Your task to perform on an android device: open a bookmark in the chrome app Image 0: 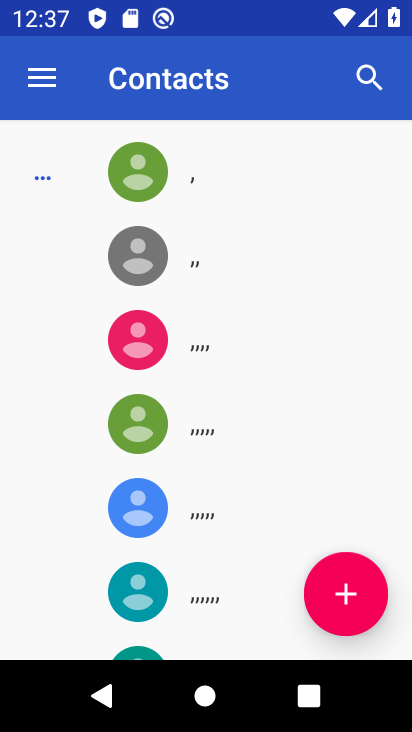
Step 0: press home button
Your task to perform on an android device: open a bookmark in the chrome app Image 1: 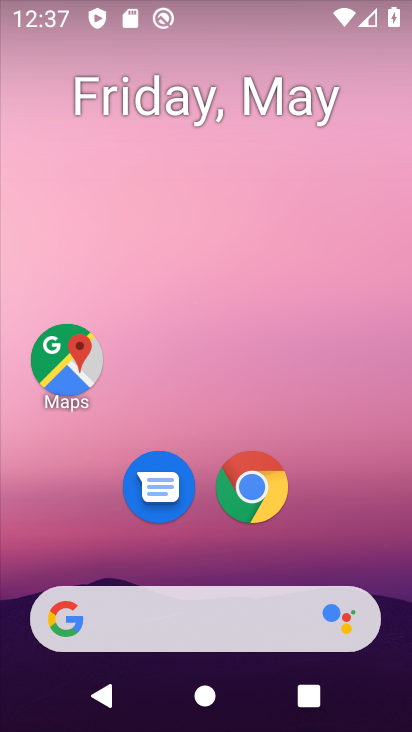
Step 1: click (277, 503)
Your task to perform on an android device: open a bookmark in the chrome app Image 2: 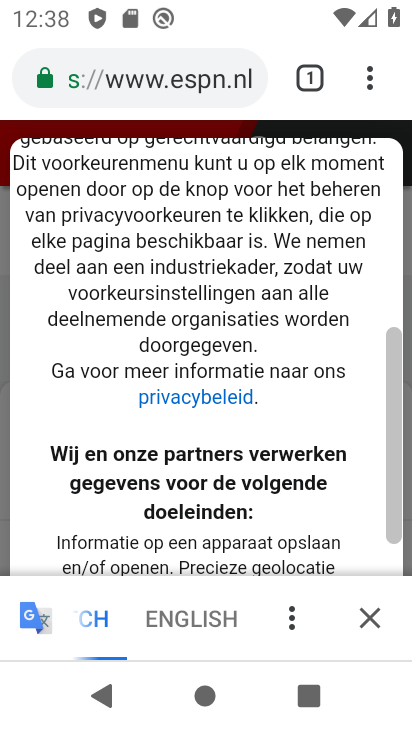
Step 2: task complete